Your task to perform on an android device: stop showing notifications on the lock screen Image 0: 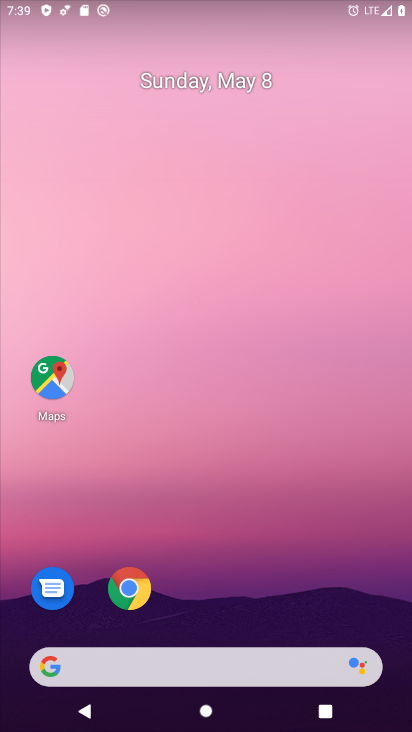
Step 0: drag from (200, 661) to (388, 45)
Your task to perform on an android device: stop showing notifications on the lock screen Image 1: 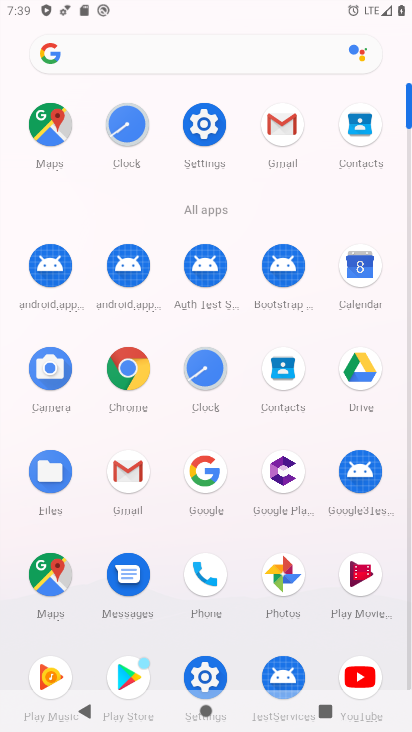
Step 1: click (205, 132)
Your task to perform on an android device: stop showing notifications on the lock screen Image 2: 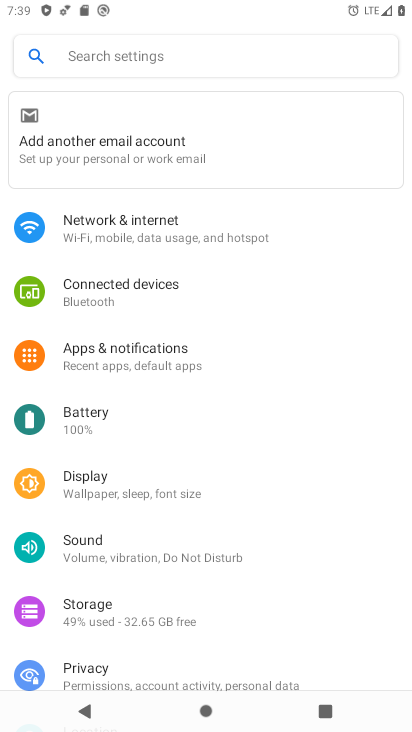
Step 2: click (163, 359)
Your task to perform on an android device: stop showing notifications on the lock screen Image 3: 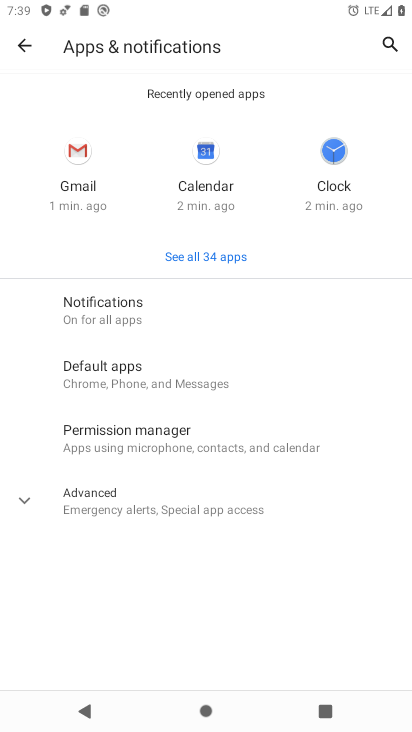
Step 3: click (115, 306)
Your task to perform on an android device: stop showing notifications on the lock screen Image 4: 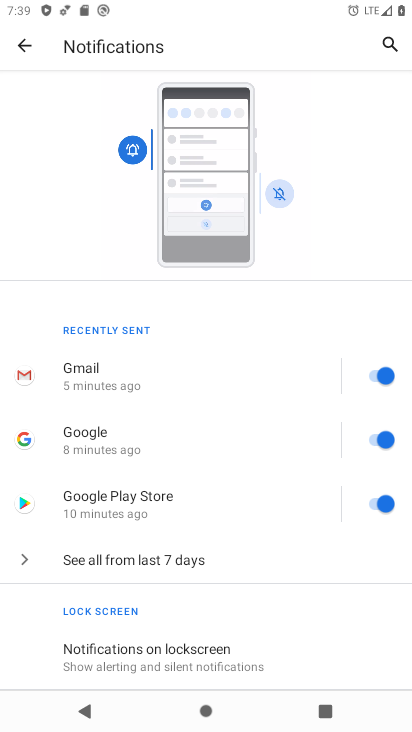
Step 4: drag from (196, 628) to (304, 283)
Your task to perform on an android device: stop showing notifications on the lock screen Image 5: 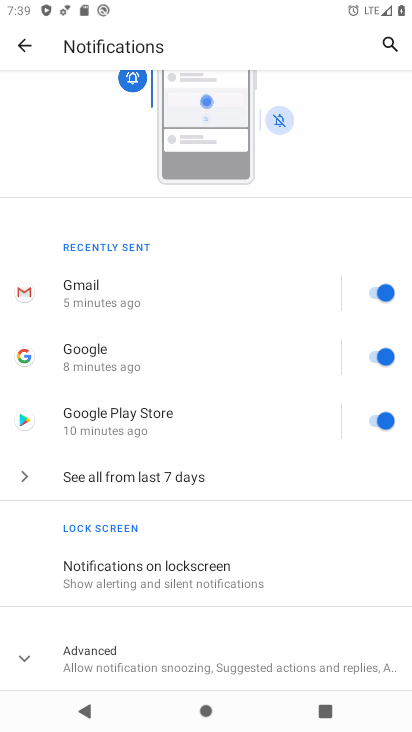
Step 5: click (157, 576)
Your task to perform on an android device: stop showing notifications on the lock screen Image 6: 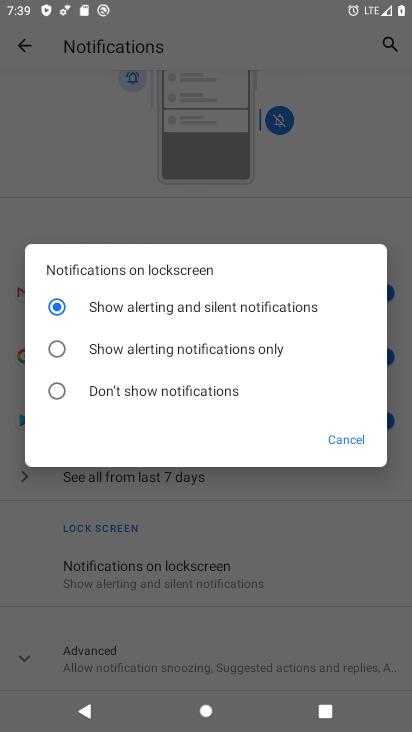
Step 6: click (58, 392)
Your task to perform on an android device: stop showing notifications on the lock screen Image 7: 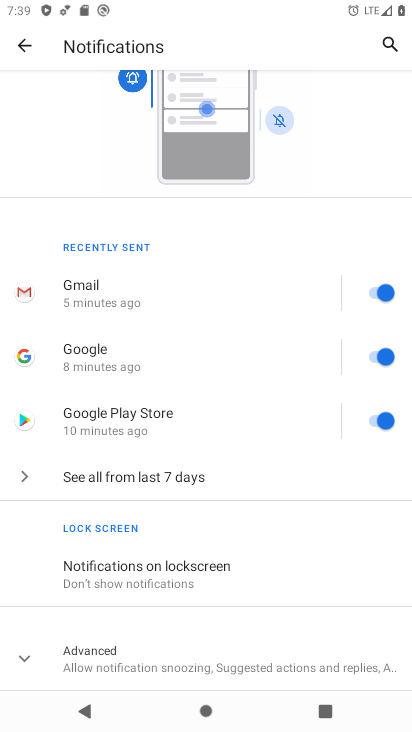
Step 7: task complete